Your task to perform on an android device: Open the SMS app Image 0: 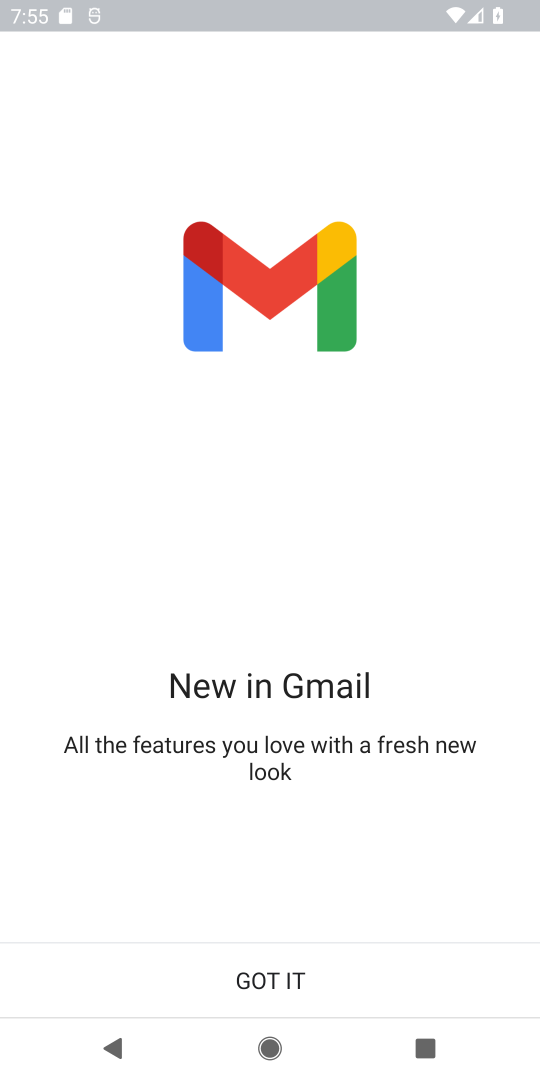
Step 0: press home button
Your task to perform on an android device: Open the SMS app Image 1: 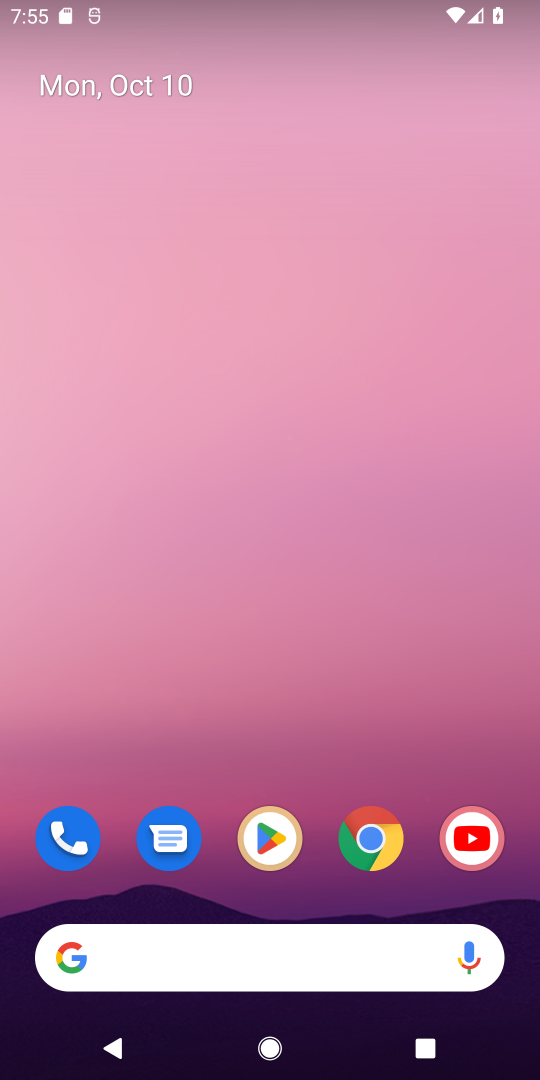
Step 1: click (169, 843)
Your task to perform on an android device: Open the SMS app Image 2: 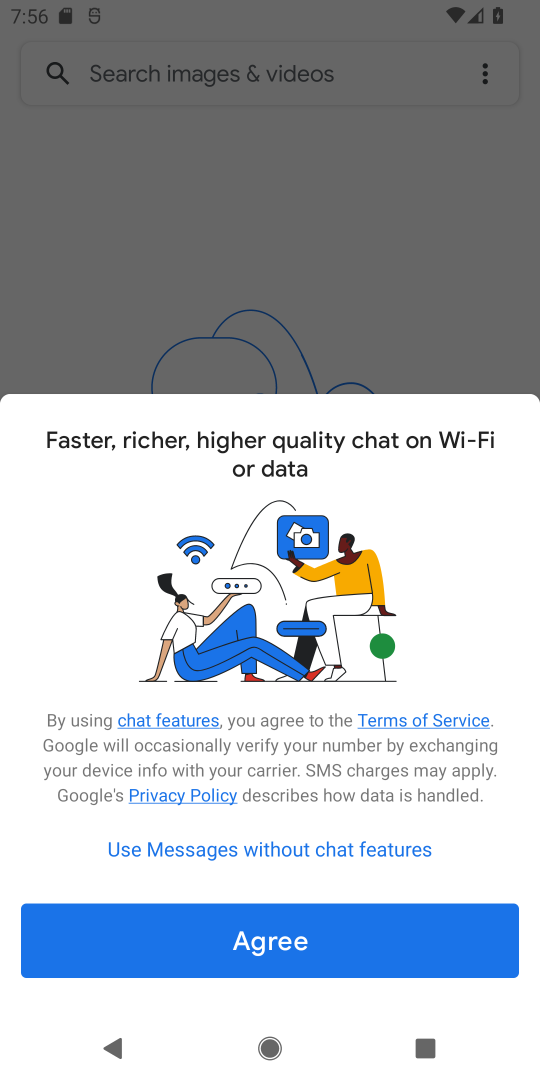
Step 2: click (258, 953)
Your task to perform on an android device: Open the SMS app Image 3: 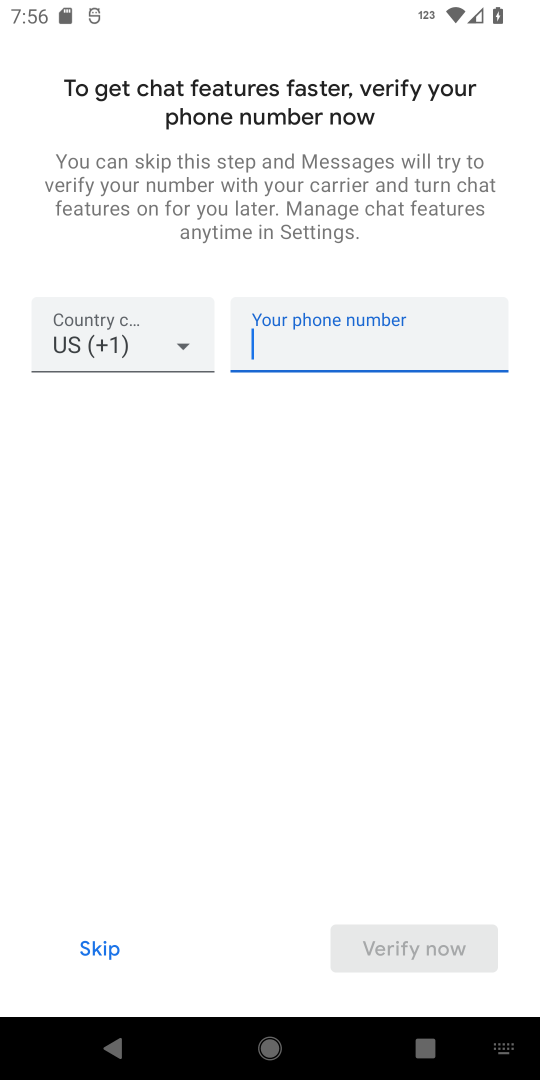
Step 3: click (101, 955)
Your task to perform on an android device: Open the SMS app Image 4: 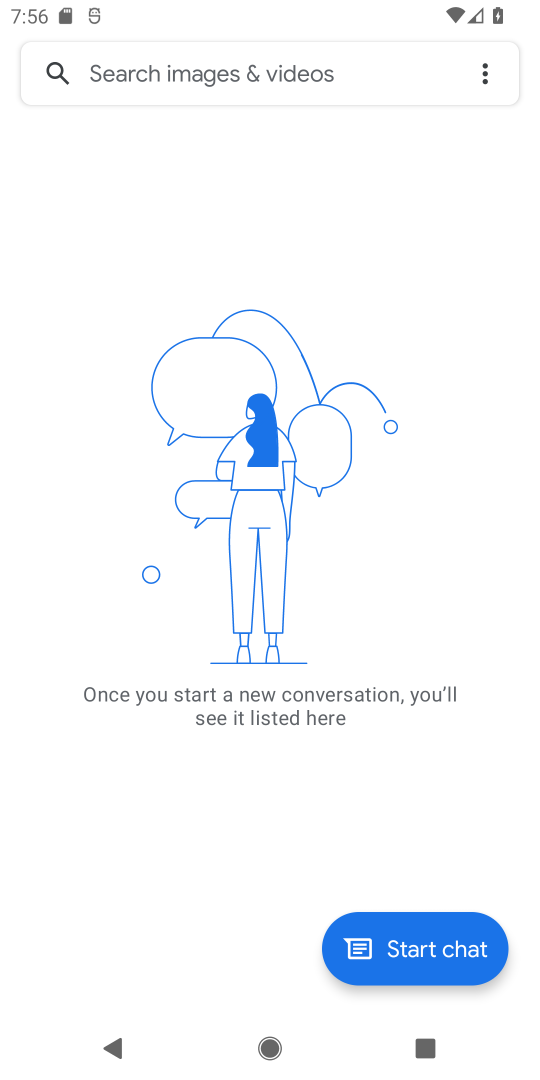
Step 4: task complete